Your task to perform on an android device: Open Youtube and go to the subscriptions tab Image 0: 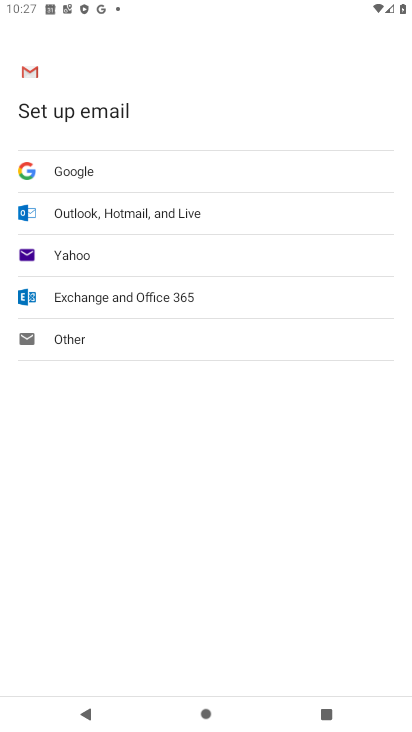
Step 0: press home button
Your task to perform on an android device: Open Youtube and go to the subscriptions tab Image 1: 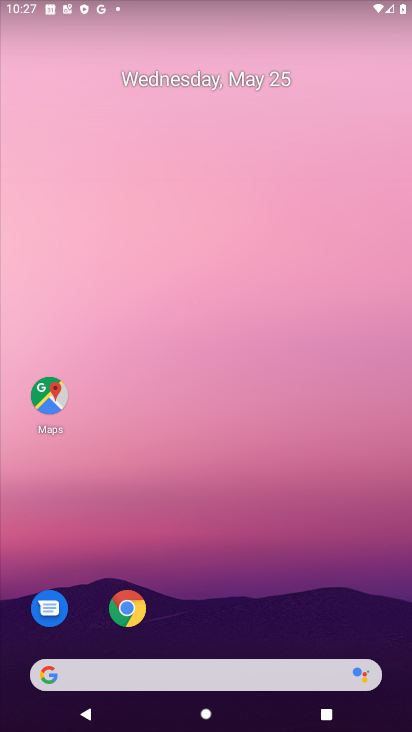
Step 1: drag from (289, 623) to (258, 2)
Your task to perform on an android device: Open Youtube and go to the subscriptions tab Image 2: 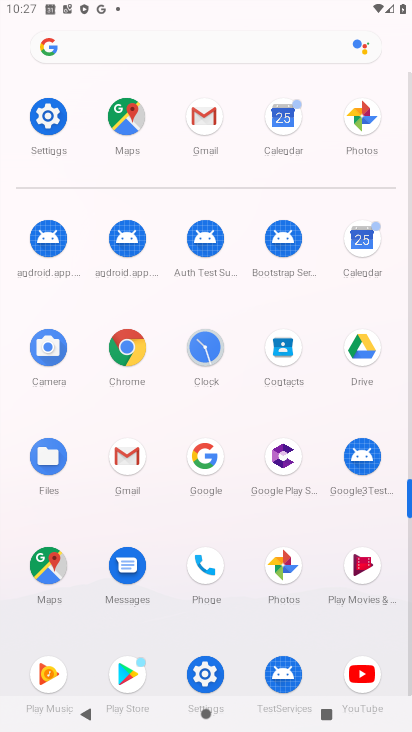
Step 2: click (365, 672)
Your task to perform on an android device: Open Youtube and go to the subscriptions tab Image 3: 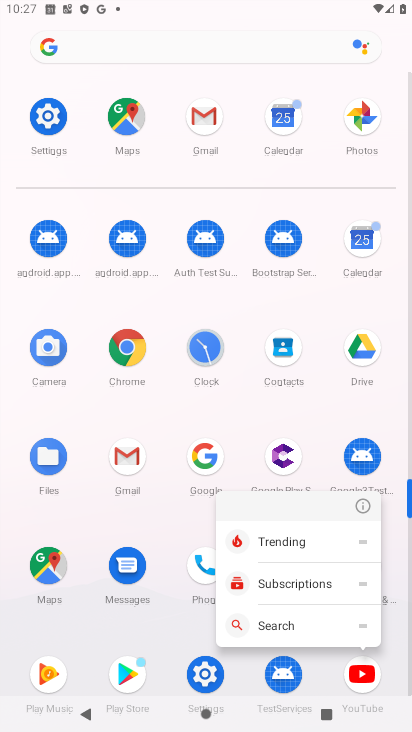
Step 3: click (365, 687)
Your task to perform on an android device: Open Youtube and go to the subscriptions tab Image 4: 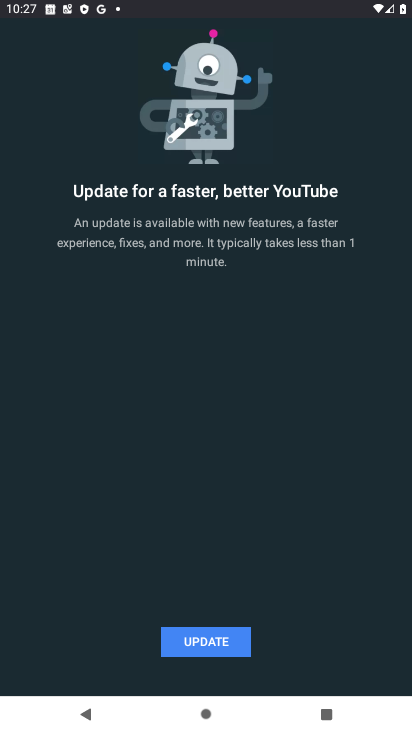
Step 4: click (218, 650)
Your task to perform on an android device: Open Youtube and go to the subscriptions tab Image 5: 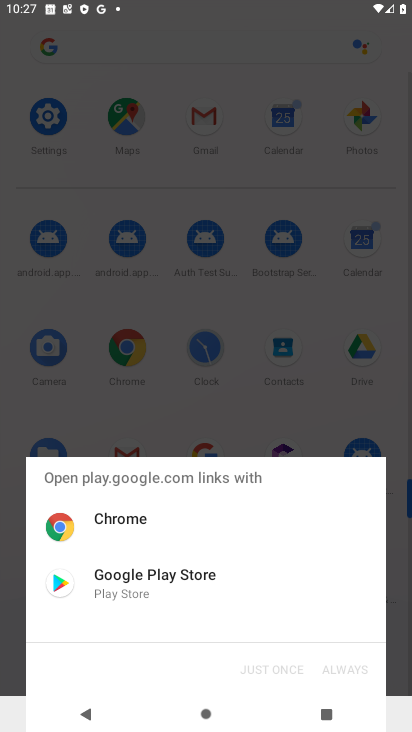
Step 5: click (57, 584)
Your task to perform on an android device: Open Youtube and go to the subscriptions tab Image 6: 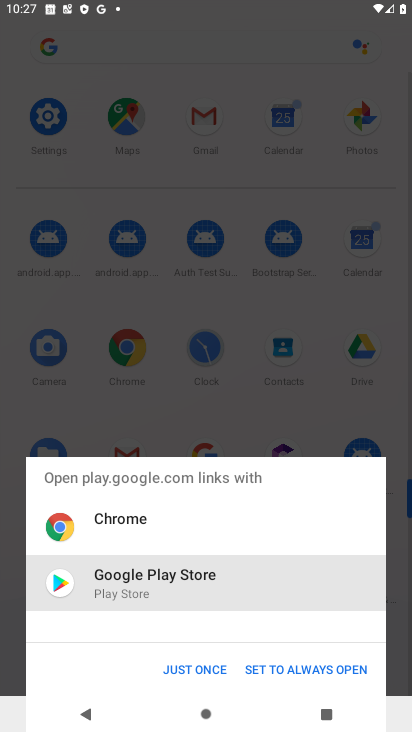
Step 6: click (175, 672)
Your task to perform on an android device: Open Youtube and go to the subscriptions tab Image 7: 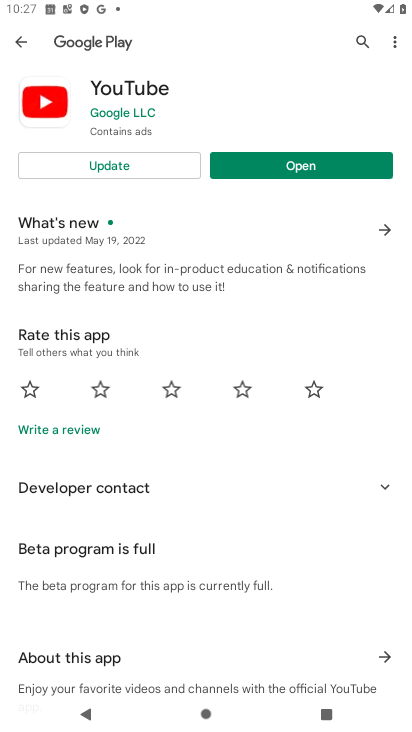
Step 7: click (111, 167)
Your task to perform on an android device: Open Youtube and go to the subscriptions tab Image 8: 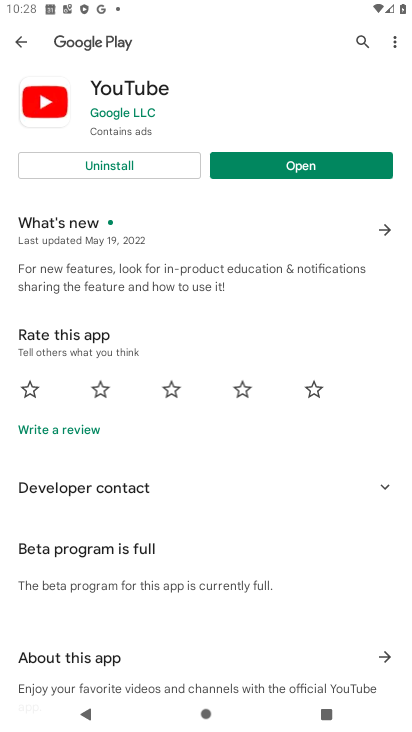
Step 8: click (278, 173)
Your task to perform on an android device: Open Youtube and go to the subscriptions tab Image 9: 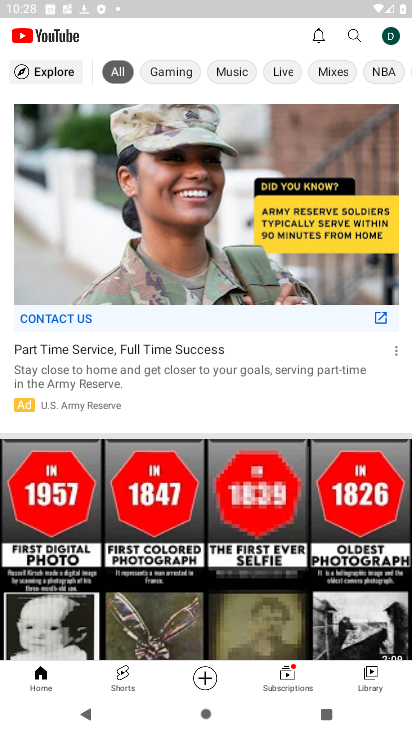
Step 9: click (292, 675)
Your task to perform on an android device: Open Youtube and go to the subscriptions tab Image 10: 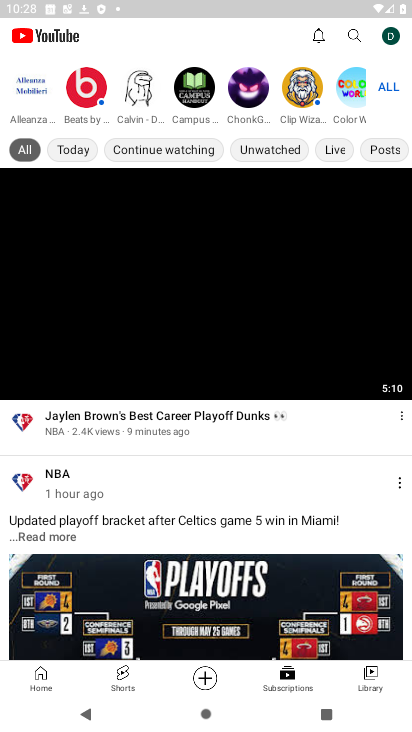
Step 10: task complete